Your task to perform on an android device: What's on my calendar tomorrow? Image 0: 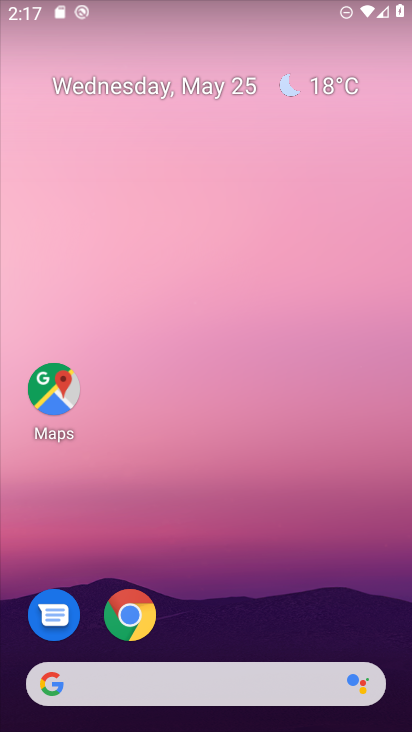
Step 0: drag from (257, 584) to (270, 91)
Your task to perform on an android device: What's on my calendar tomorrow? Image 1: 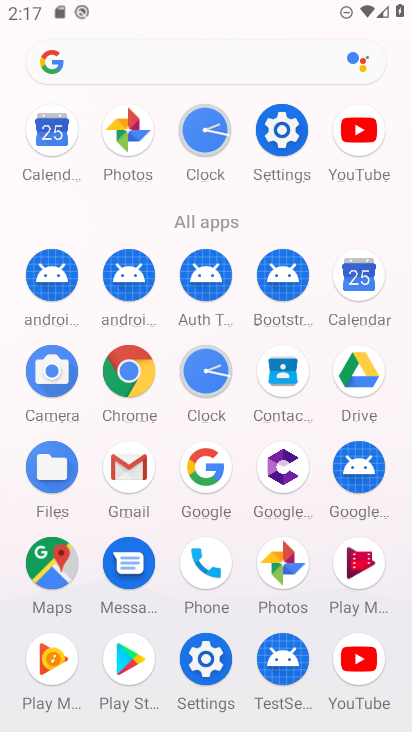
Step 1: click (349, 270)
Your task to perform on an android device: What's on my calendar tomorrow? Image 2: 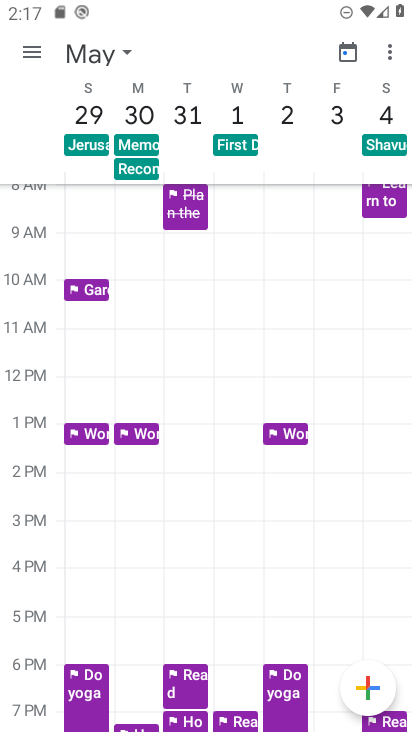
Step 2: drag from (77, 357) to (394, 359)
Your task to perform on an android device: What's on my calendar tomorrow? Image 3: 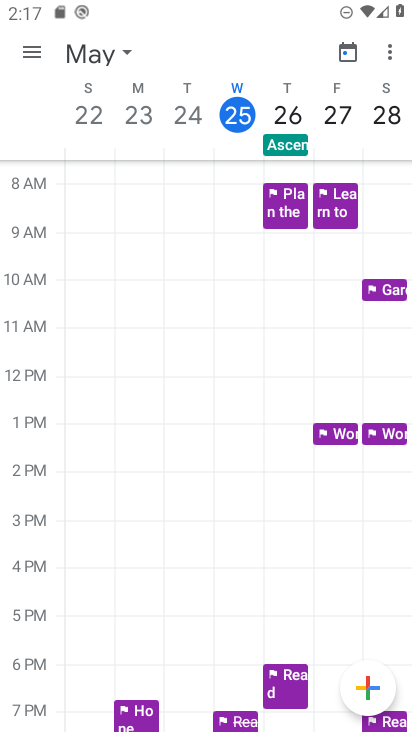
Step 3: click (234, 107)
Your task to perform on an android device: What's on my calendar tomorrow? Image 4: 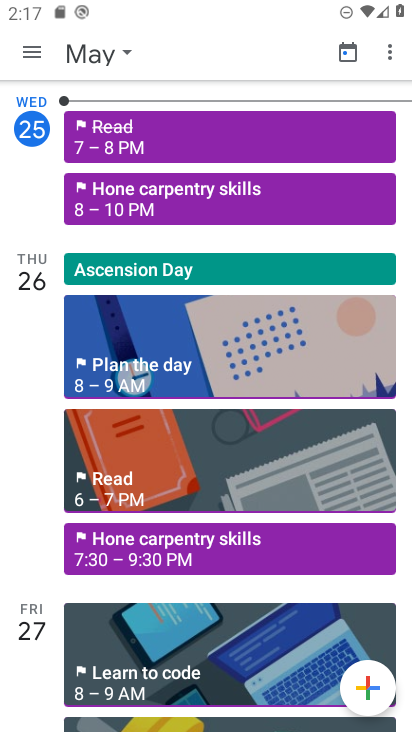
Step 4: task complete